Your task to perform on an android device: What's the latest video from GameSpot Reviews? Image 0: 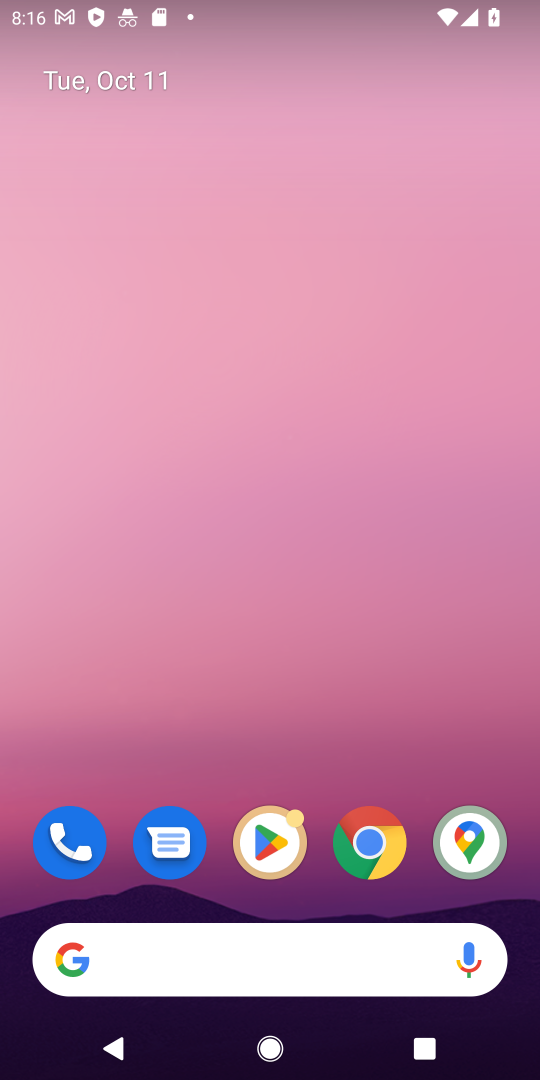
Step 0: click (247, 958)
Your task to perform on an android device: What's the latest video from GameSpot Reviews? Image 1: 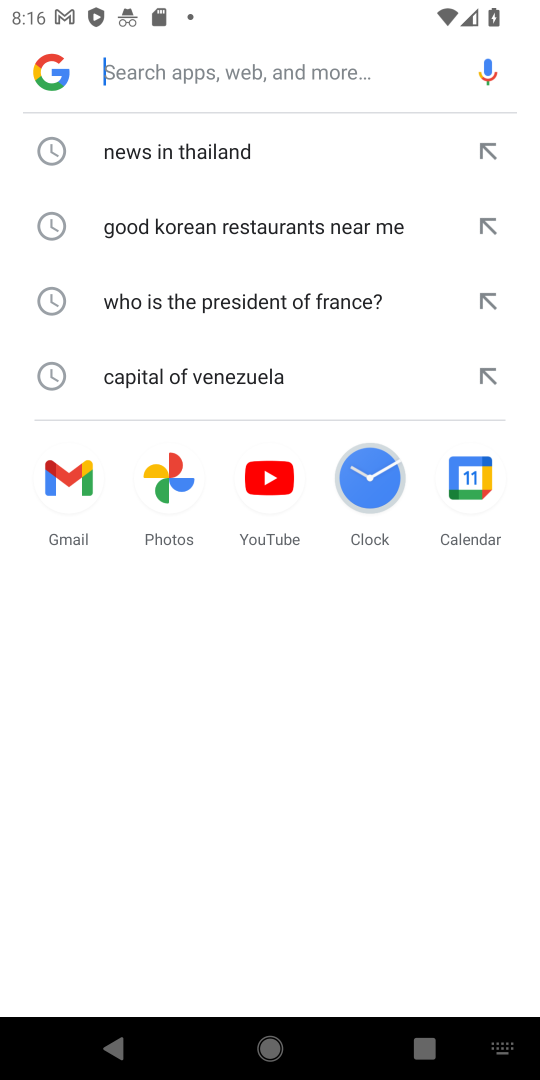
Step 1: type "What's the latest video from GameSpot Reviews?"
Your task to perform on an android device: What's the latest video from GameSpot Reviews? Image 2: 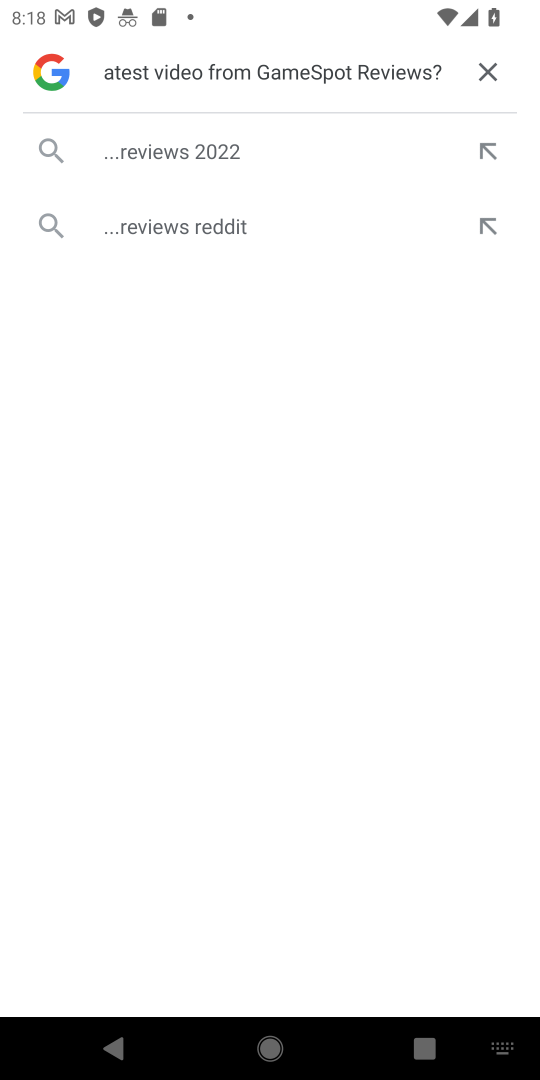
Step 2: click (217, 135)
Your task to perform on an android device: What's the latest video from GameSpot Reviews? Image 3: 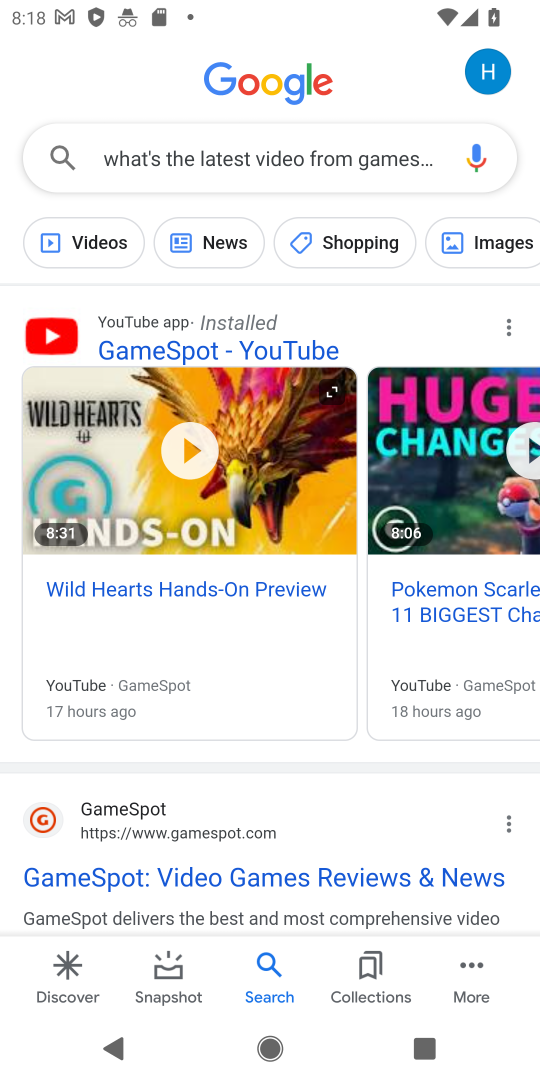
Step 3: task complete